Your task to perform on an android device: Open Chrome and go to settings Image 0: 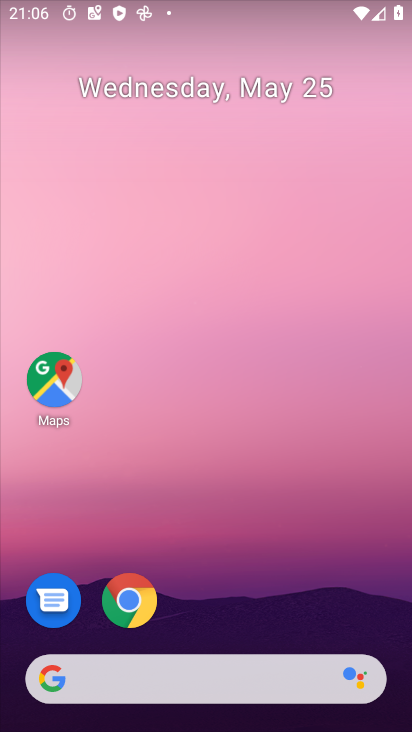
Step 0: drag from (360, 601) to (361, 5)
Your task to perform on an android device: Open Chrome and go to settings Image 1: 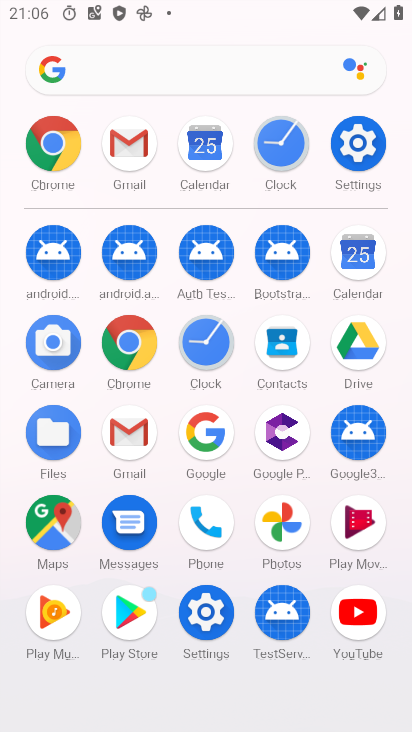
Step 1: click (139, 341)
Your task to perform on an android device: Open Chrome and go to settings Image 2: 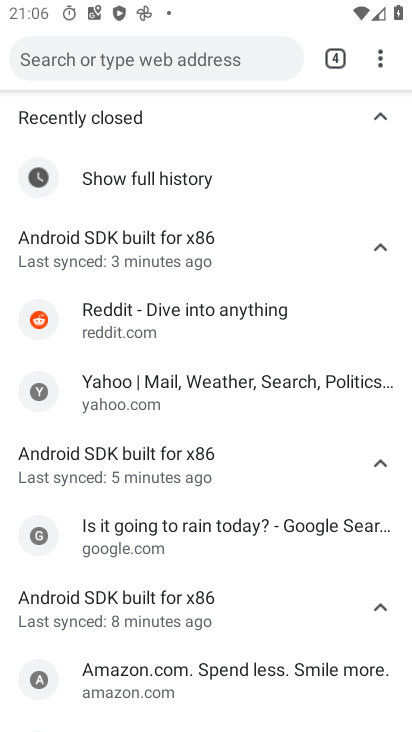
Step 2: task complete